Your task to perform on an android device: snooze an email in the gmail app Image 0: 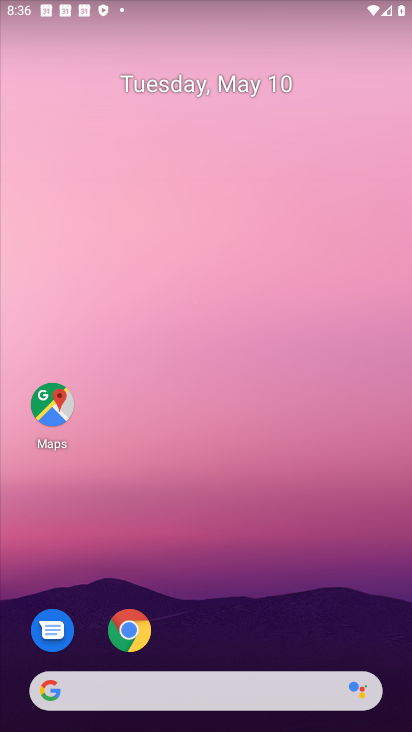
Step 0: drag from (153, 715) to (163, 110)
Your task to perform on an android device: snooze an email in the gmail app Image 1: 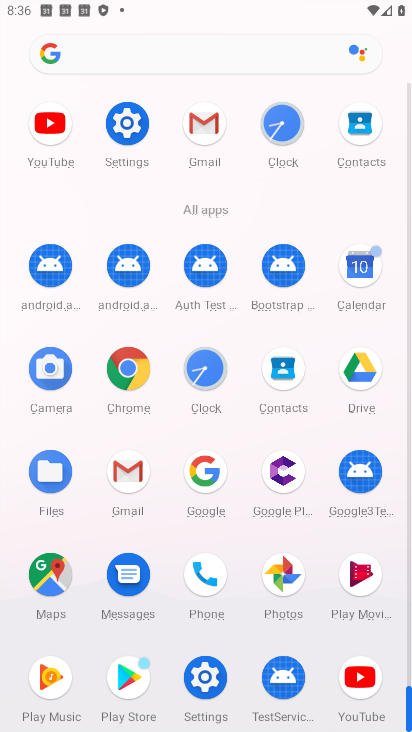
Step 1: click (208, 132)
Your task to perform on an android device: snooze an email in the gmail app Image 2: 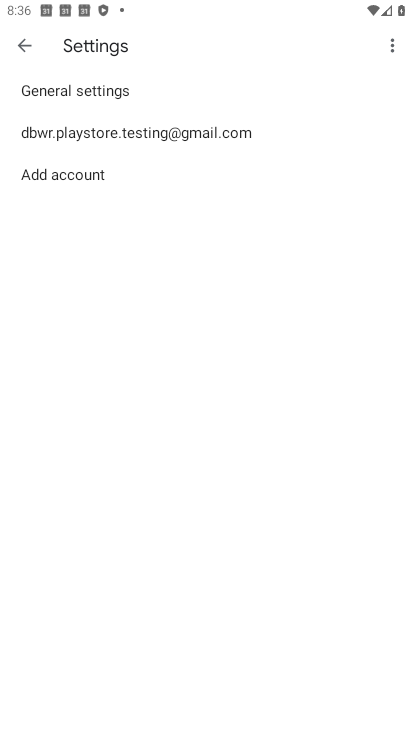
Step 2: click (193, 140)
Your task to perform on an android device: snooze an email in the gmail app Image 3: 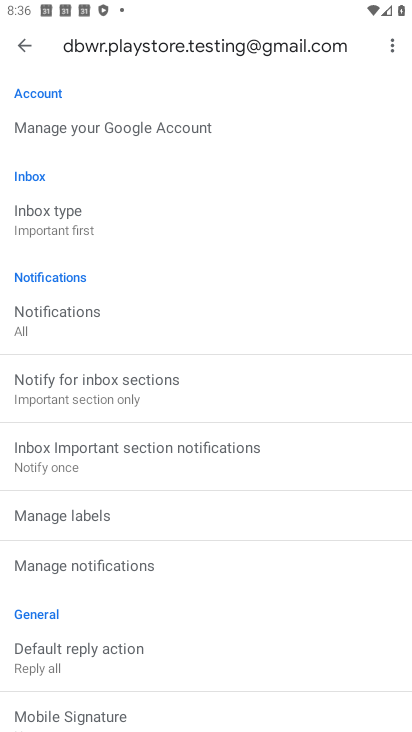
Step 3: click (25, 40)
Your task to perform on an android device: snooze an email in the gmail app Image 4: 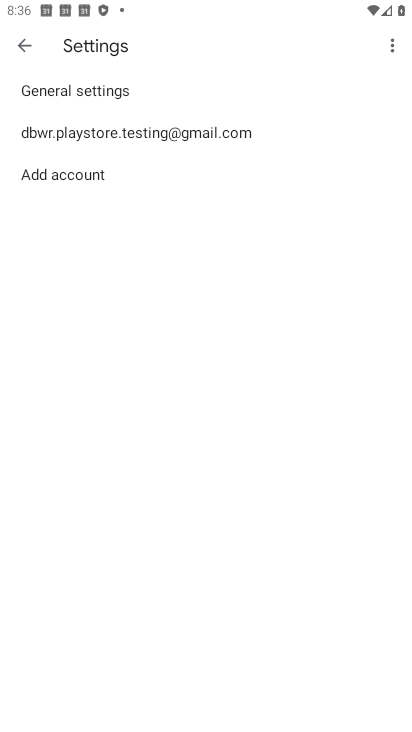
Step 4: click (23, 42)
Your task to perform on an android device: snooze an email in the gmail app Image 5: 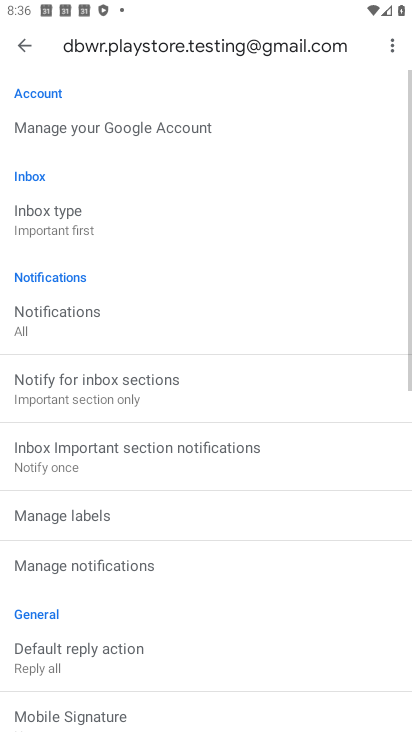
Step 5: click (24, 46)
Your task to perform on an android device: snooze an email in the gmail app Image 6: 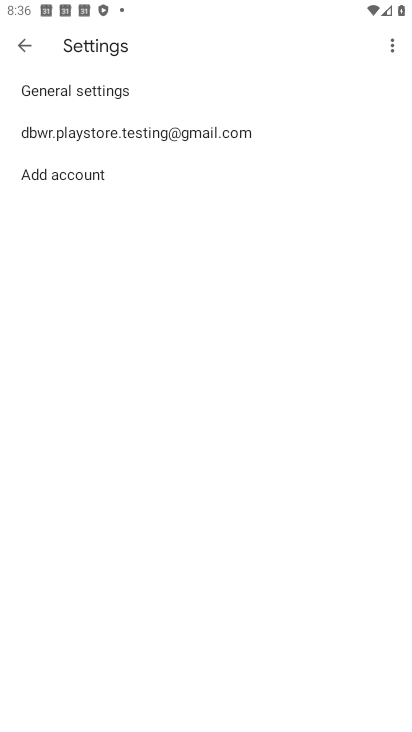
Step 6: click (24, 46)
Your task to perform on an android device: snooze an email in the gmail app Image 7: 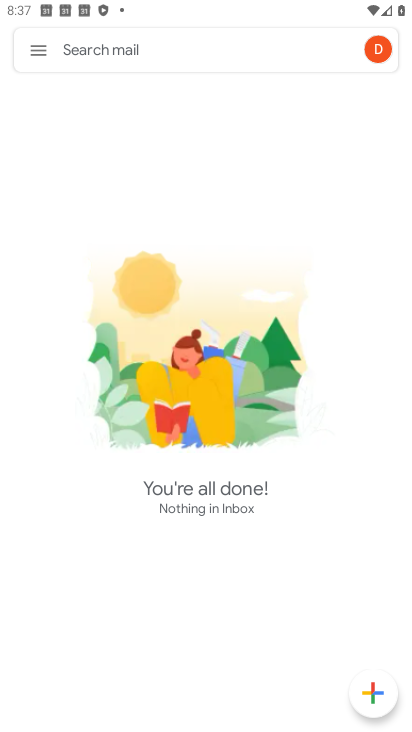
Step 7: click (43, 52)
Your task to perform on an android device: snooze an email in the gmail app Image 8: 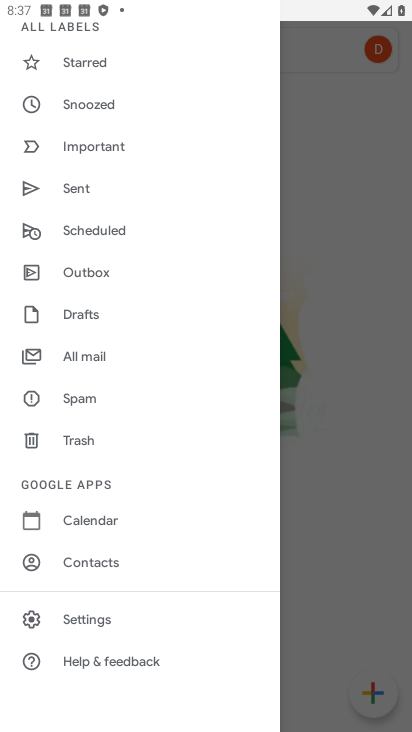
Step 8: click (96, 348)
Your task to perform on an android device: snooze an email in the gmail app Image 9: 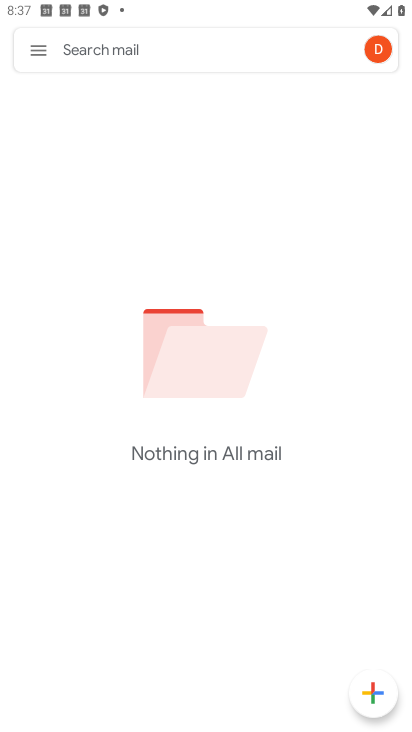
Step 9: task complete